Your task to perform on an android device: toggle notifications settings in the gmail app Image 0: 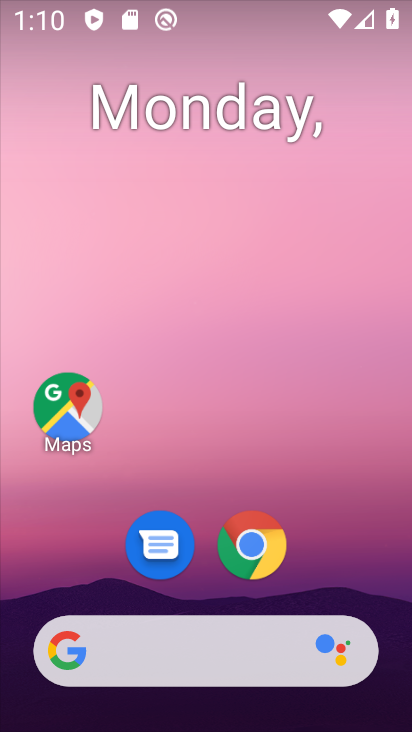
Step 0: drag from (228, 721) to (196, 163)
Your task to perform on an android device: toggle notifications settings in the gmail app Image 1: 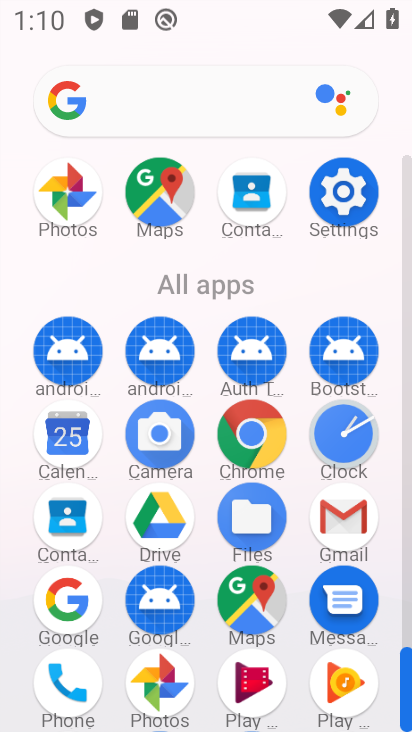
Step 1: click (334, 514)
Your task to perform on an android device: toggle notifications settings in the gmail app Image 2: 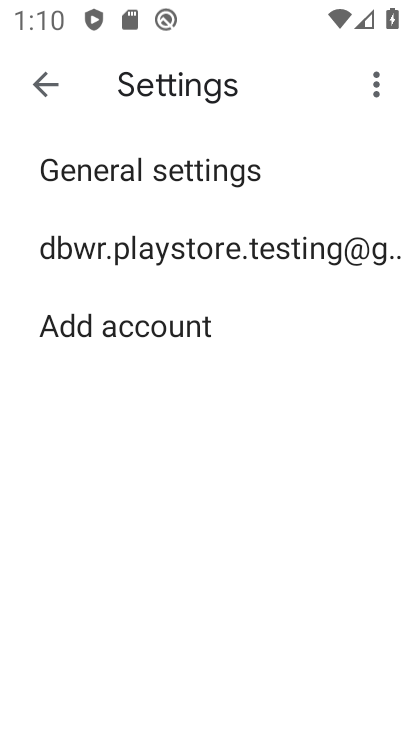
Step 2: click (219, 251)
Your task to perform on an android device: toggle notifications settings in the gmail app Image 3: 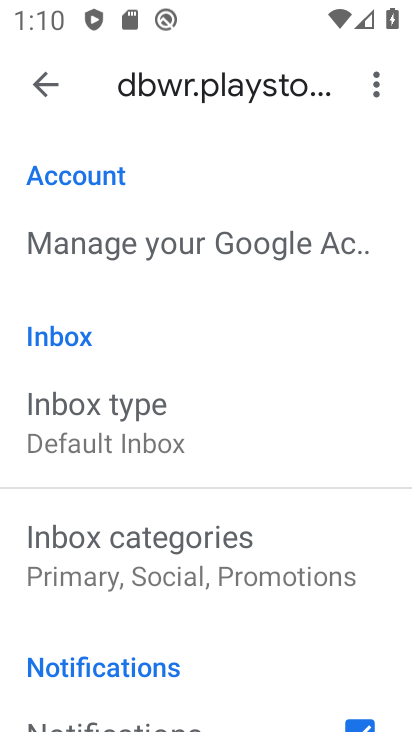
Step 3: drag from (222, 679) to (223, 194)
Your task to perform on an android device: toggle notifications settings in the gmail app Image 4: 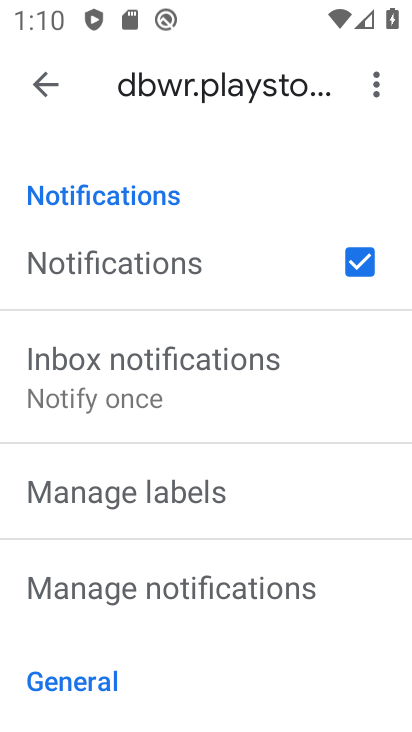
Step 4: click (165, 358)
Your task to perform on an android device: toggle notifications settings in the gmail app Image 5: 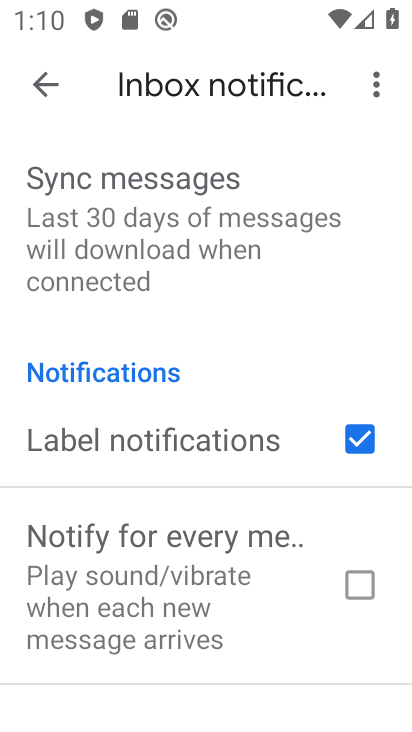
Step 5: click (353, 575)
Your task to perform on an android device: toggle notifications settings in the gmail app Image 6: 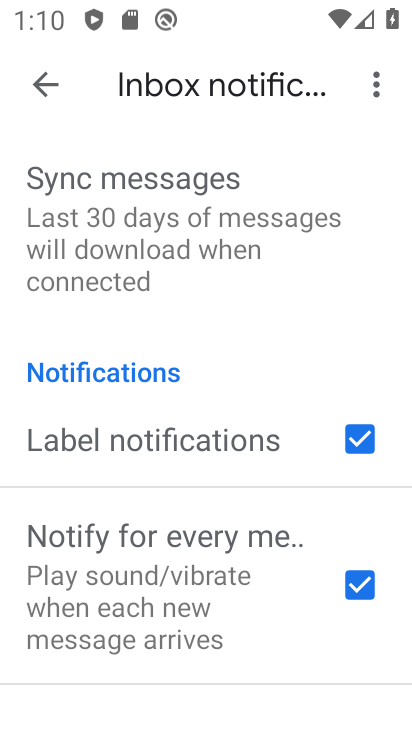
Step 6: click (49, 80)
Your task to perform on an android device: toggle notifications settings in the gmail app Image 7: 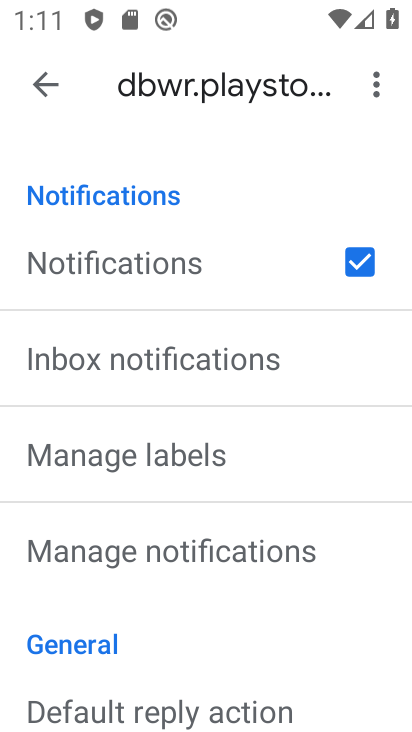
Step 7: task complete